Your task to perform on an android device: turn on sleep mode Image 0: 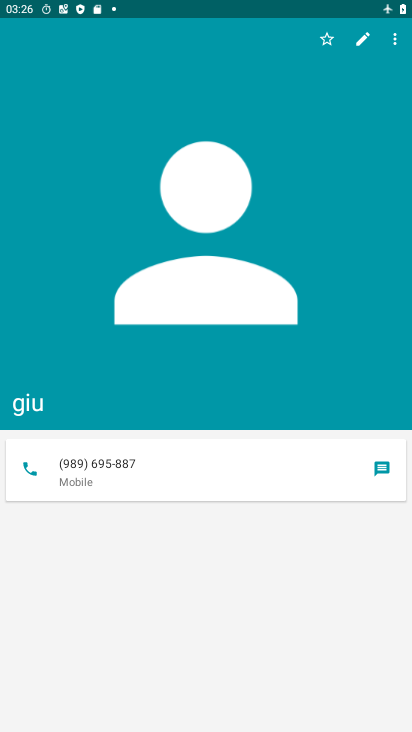
Step 0: press home button
Your task to perform on an android device: turn on sleep mode Image 1: 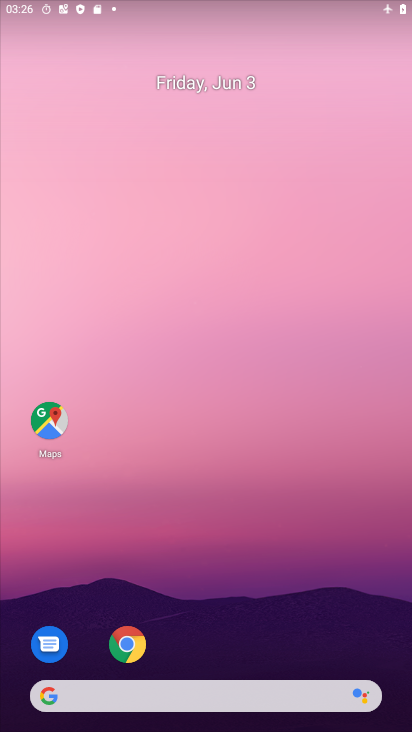
Step 1: drag from (227, 636) to (217, 142)
Your task to perform on an android device: turn on sleep mode Image 2: 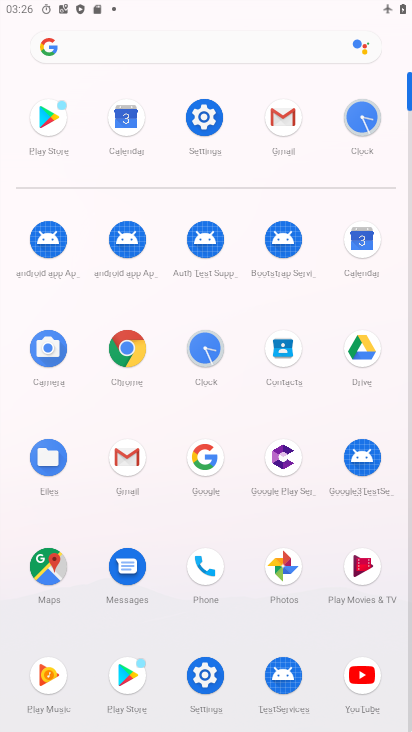
Step 2: click (223, 107)
Your task to perform on an android device: turn on sleep mode Image 3: 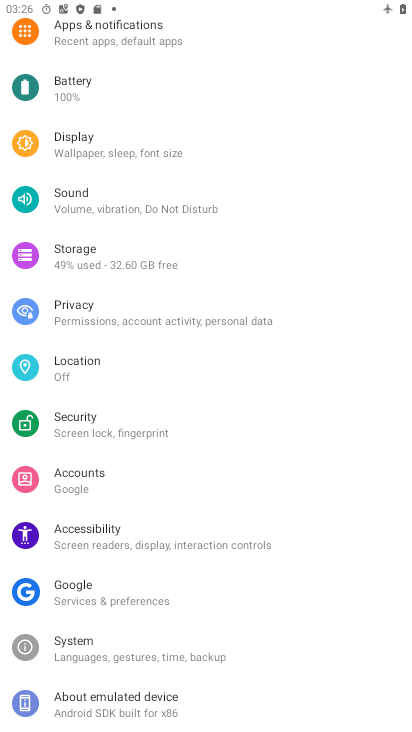
Step 3: click (82, 154)
Your task to perform on an android device: turn on sleep mode Image 4: 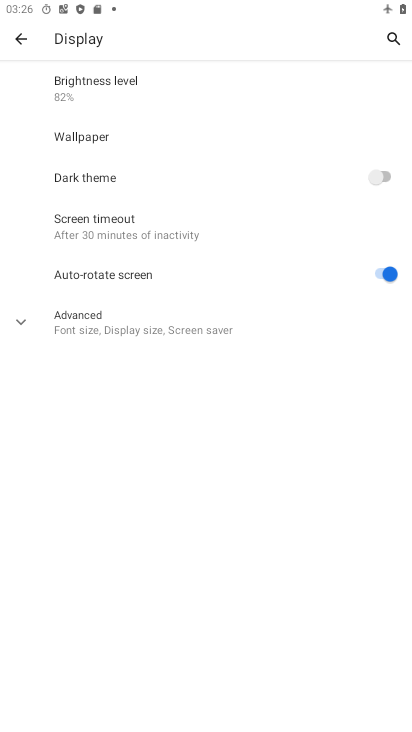
Step 4: click (132, 225)
Your task to perform on an android device: turn on sleep mode Image 5: 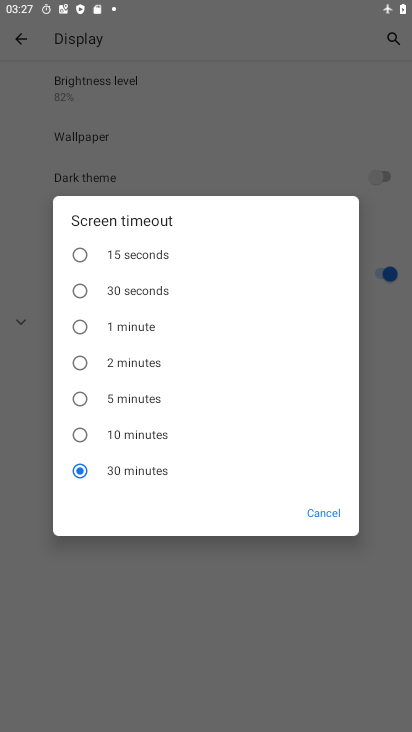
Step 5: click (151, 302)
Your task to perform on an android device: turn on sleep mode Image 6: 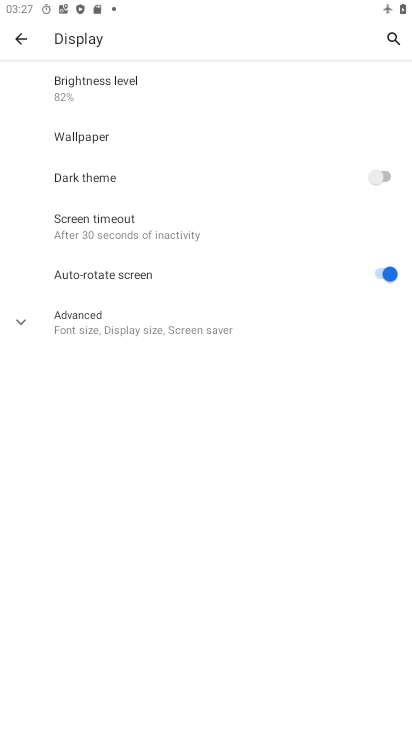
Step 6: task complete